Your task to perform on an android device: set the timer Image 0: 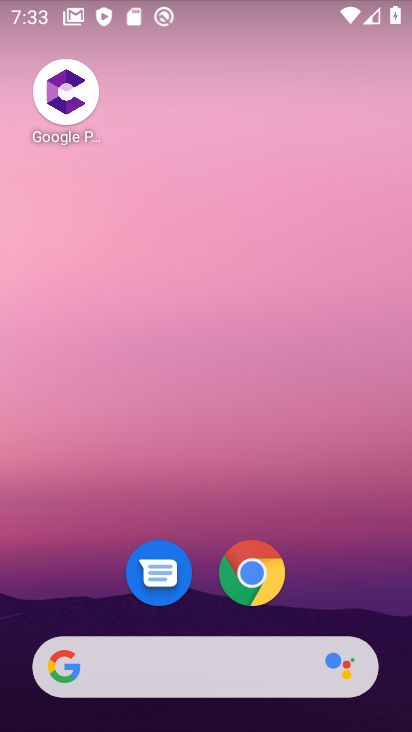
Step 0: drag from (191, 591) to (354, 96)
Your task to perform on an android device: set the timer Image 1: 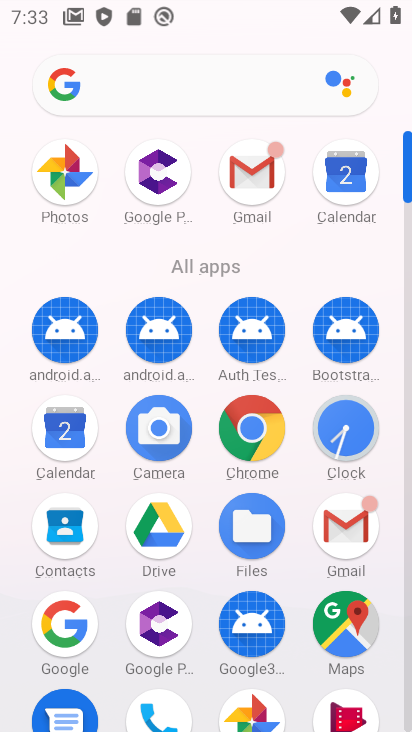
Step 1: click (344, 430)
Your task to perform on an android device: set the timer Image 2: 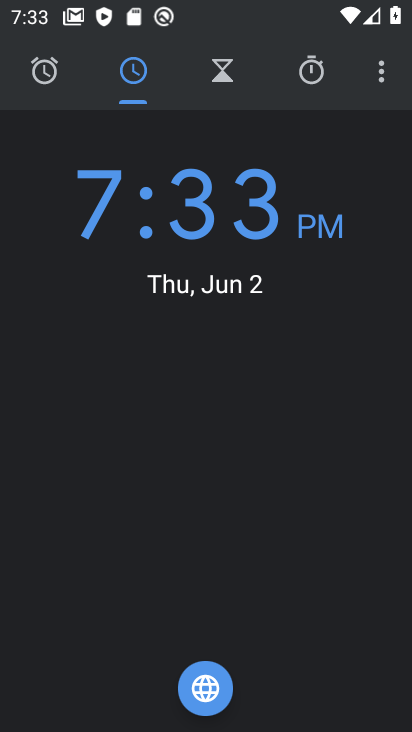
Step 2: click (220, 76)
Your task to perform on an android device: set the timer Image 3: 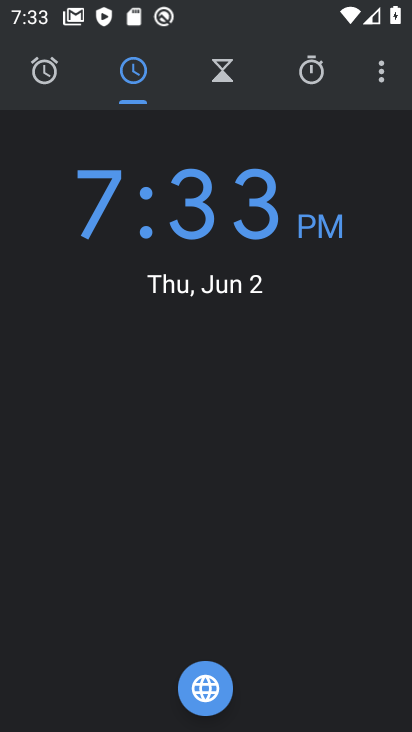
Step 3: click (223, 81)
Your task to perform on an android device: set the timer Image 4: 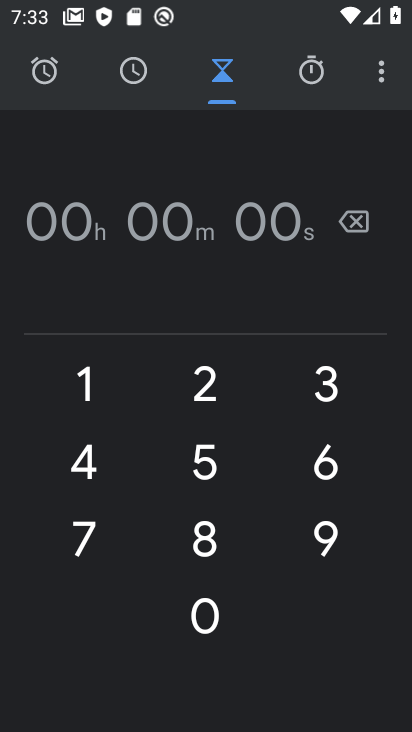
Step 4: click (205, 368)
Your task to perform on an android device: set the timer Image 5: 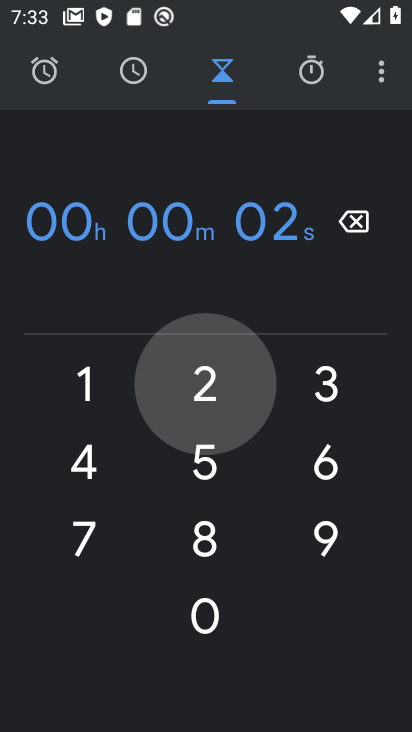
Step 5: click (205, 368)
Your task to perform on an android device: set the timer Image 6: 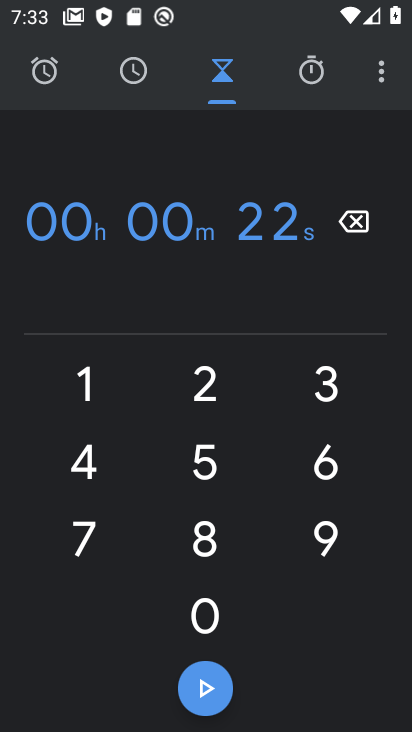
Step 6: click (207, 696)
Your task to perform on an android device: set the timer Image 7: 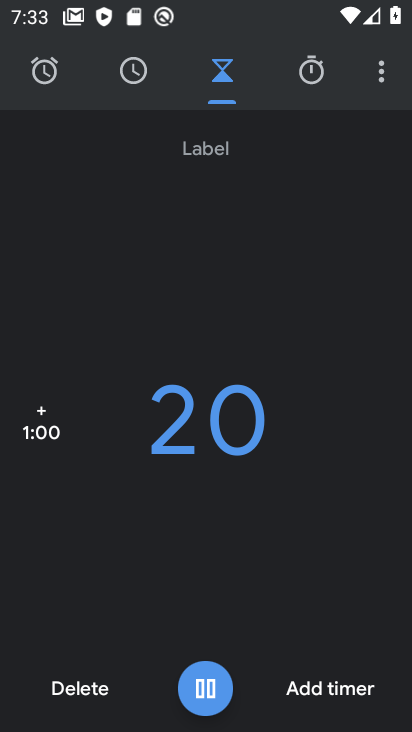
Step 7: click (207, 696)
Your task to perform on an android device: set the timer Image 8: 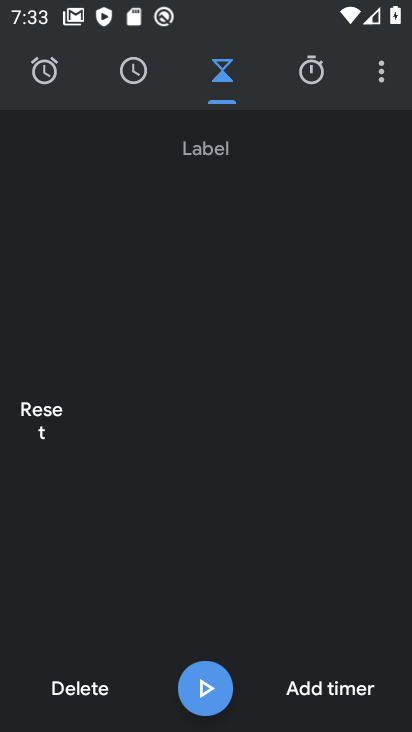
Step 8: task complete